Your task to perform on an android device: open app "Google Home" (install if not already installed) Image 0: 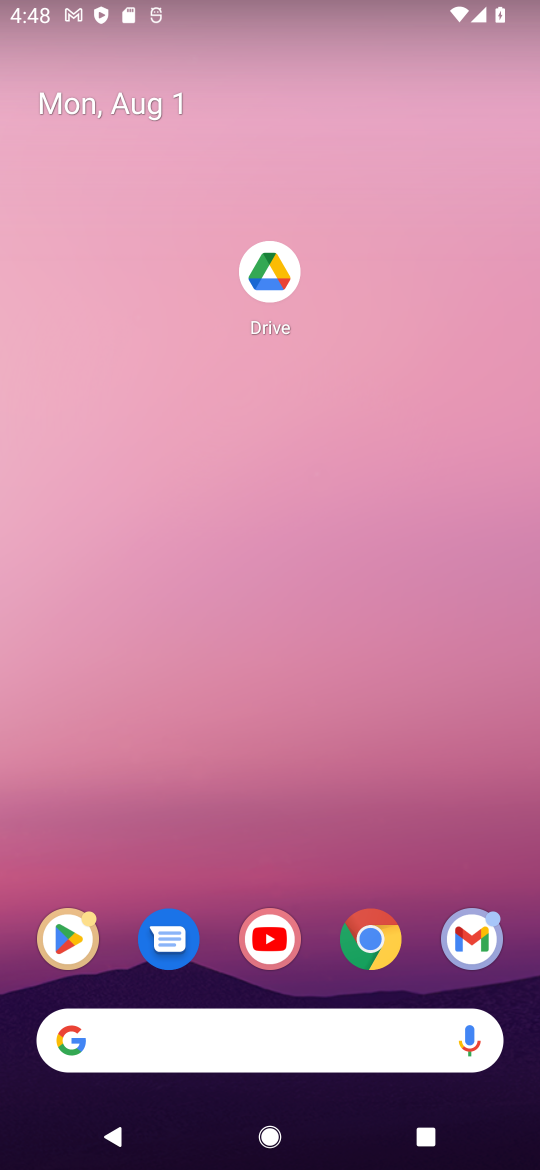
Step 0: click (67, 934)
Your task to perform on an android device: open app "Google Home" (install if not already installed) Image 1: 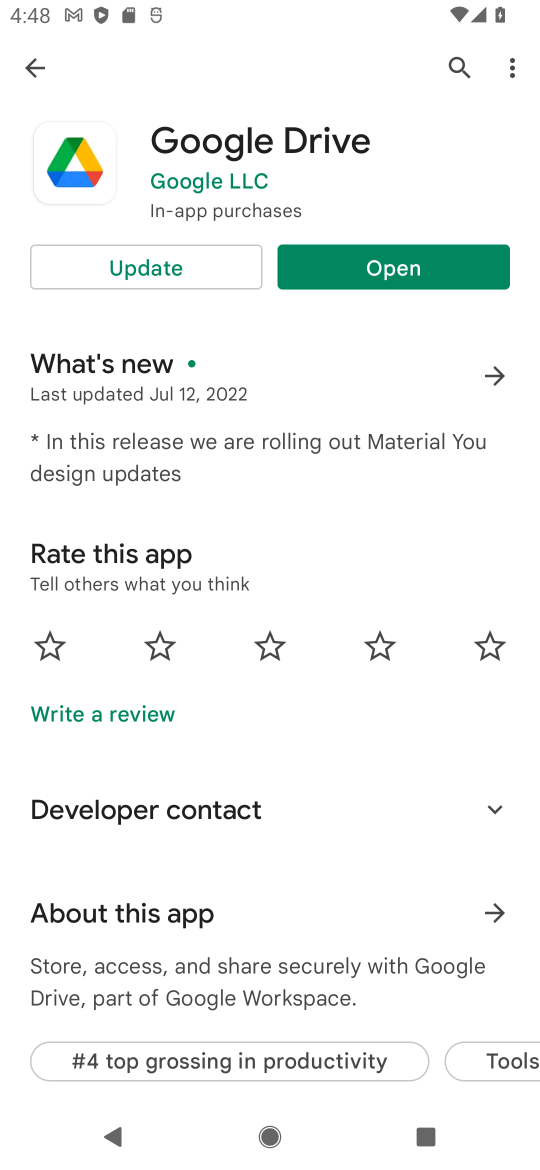
Step 1: click (443, 58)
Your task to perform on an android device: open app "Google Home" (install if not already installed) Image 2: 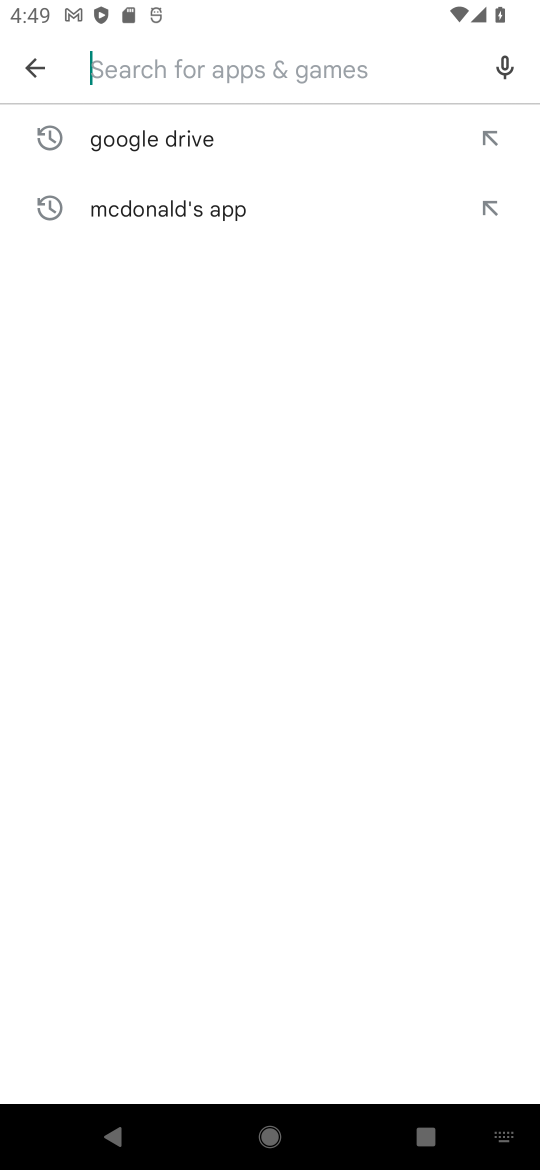
Step 2: type "google home"
Your task to perform on an android device: open app "Google Home" (install if not already installed) Image 3: 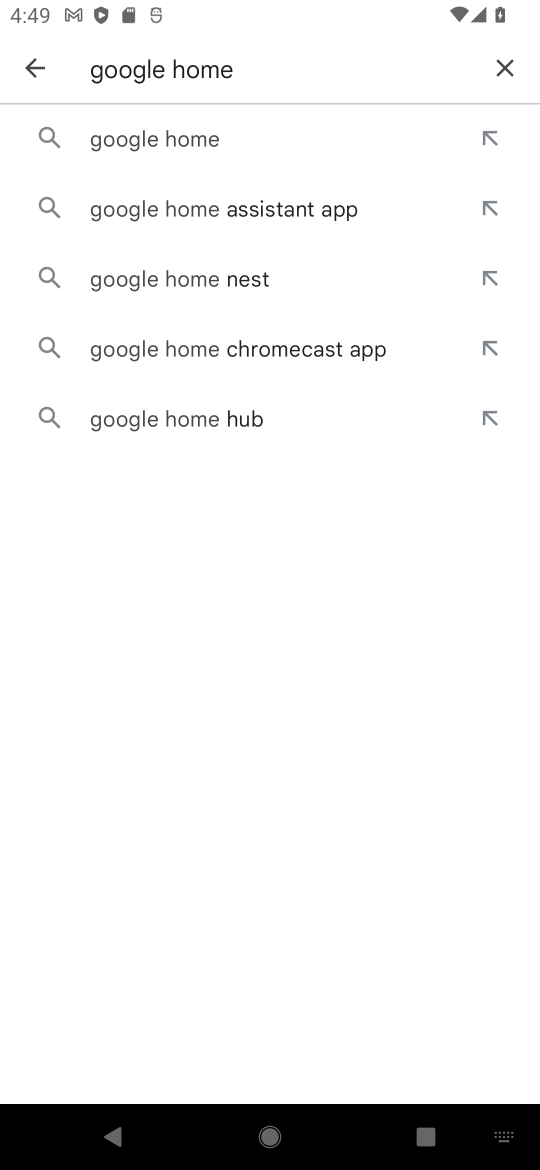
Step 3: click (164, 133)
Your task to perform on an android device: open app "Google Home" (install if not already installed) Image 4: 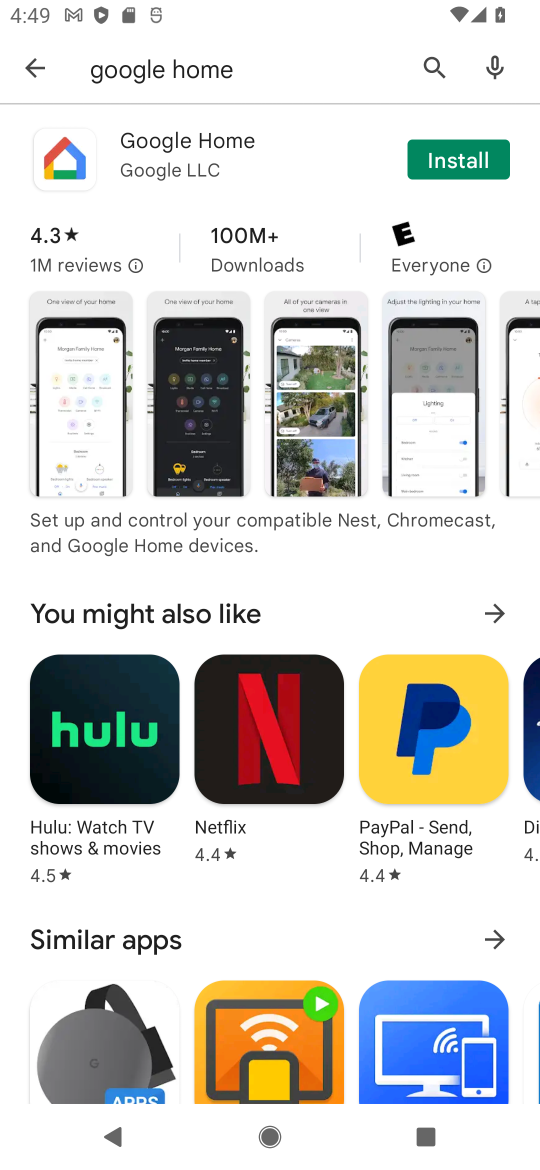
Step 4: click (448, 159)
Your task to perform on an android device: open app "Google Home" (install if not already installed) Image 5: 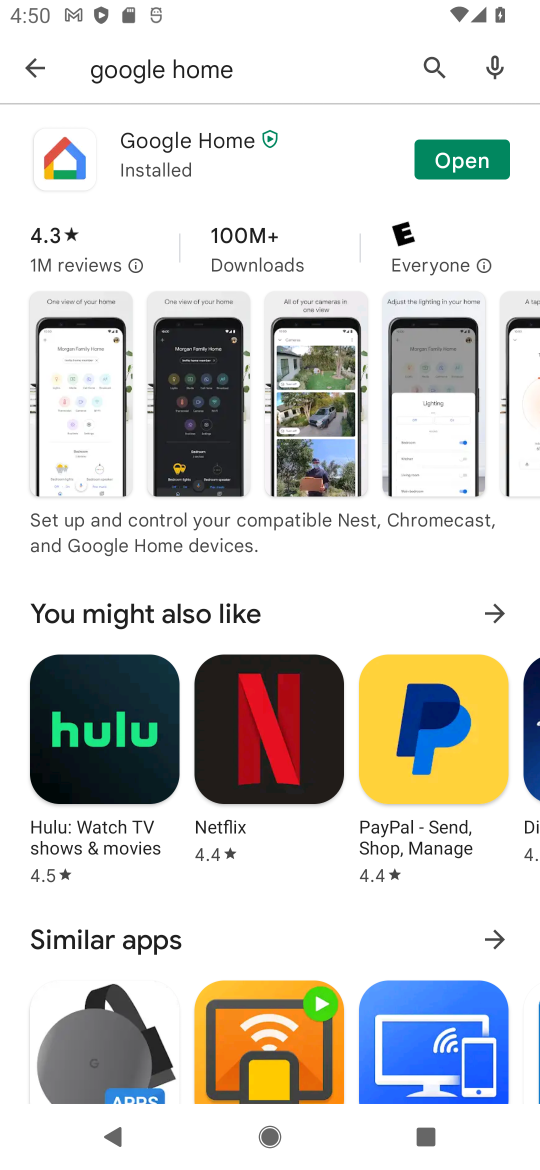
Step 5: click (484, 172)
Your task to perform on an android device: open app "Google Home" (install if not already installed) Image 6: 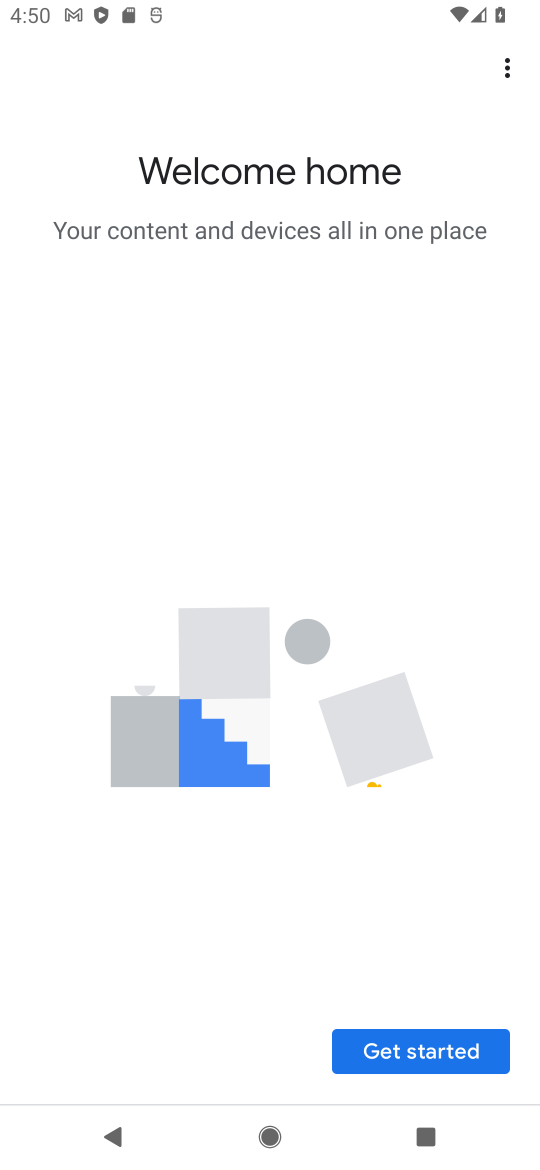
Step 6: task complete